Your task to perform on an android device: Open Google Chrome and click the shortcut for Amazon.com Image 0: 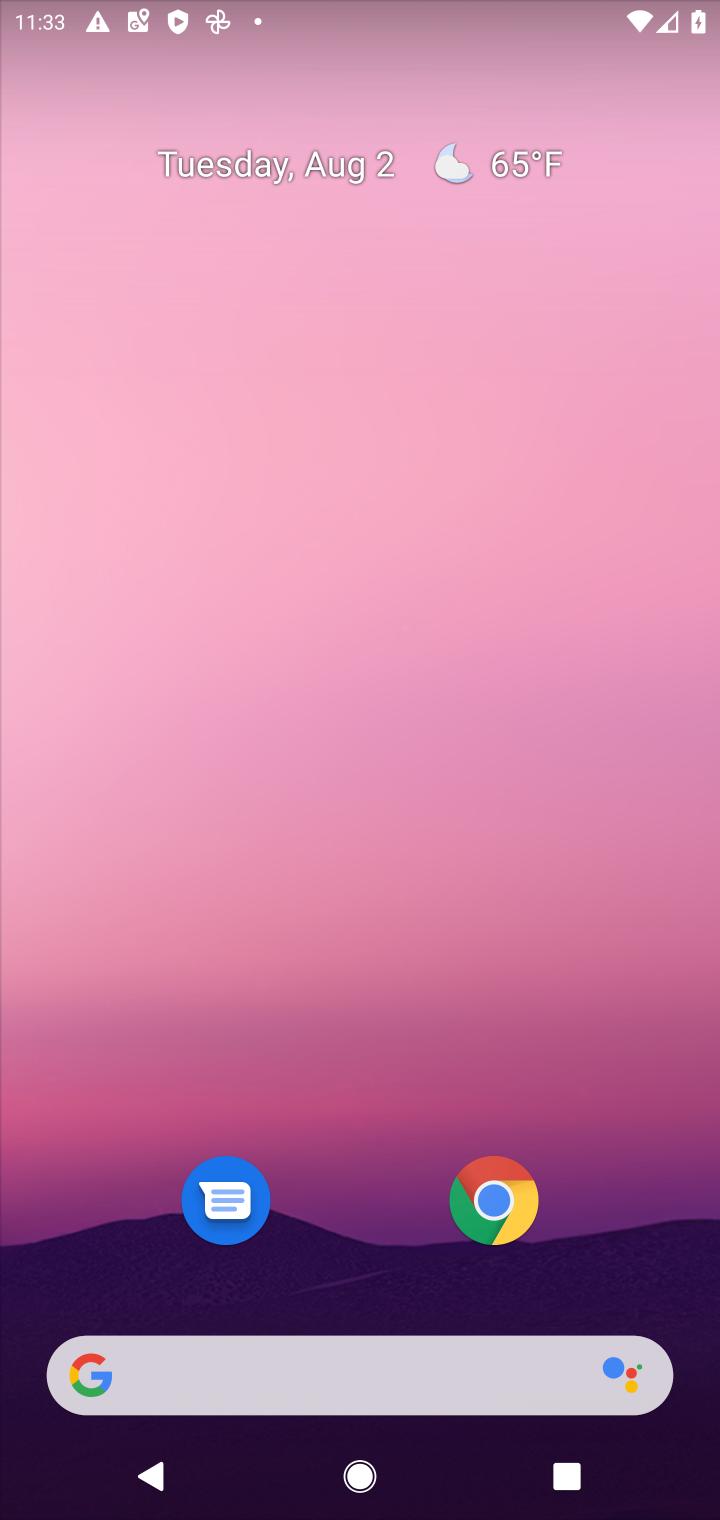
Step 0: click (497, 1204)
Your task to perform on an android device: Open Google Chrome and click the shortcut for Amazon.com Image 1: 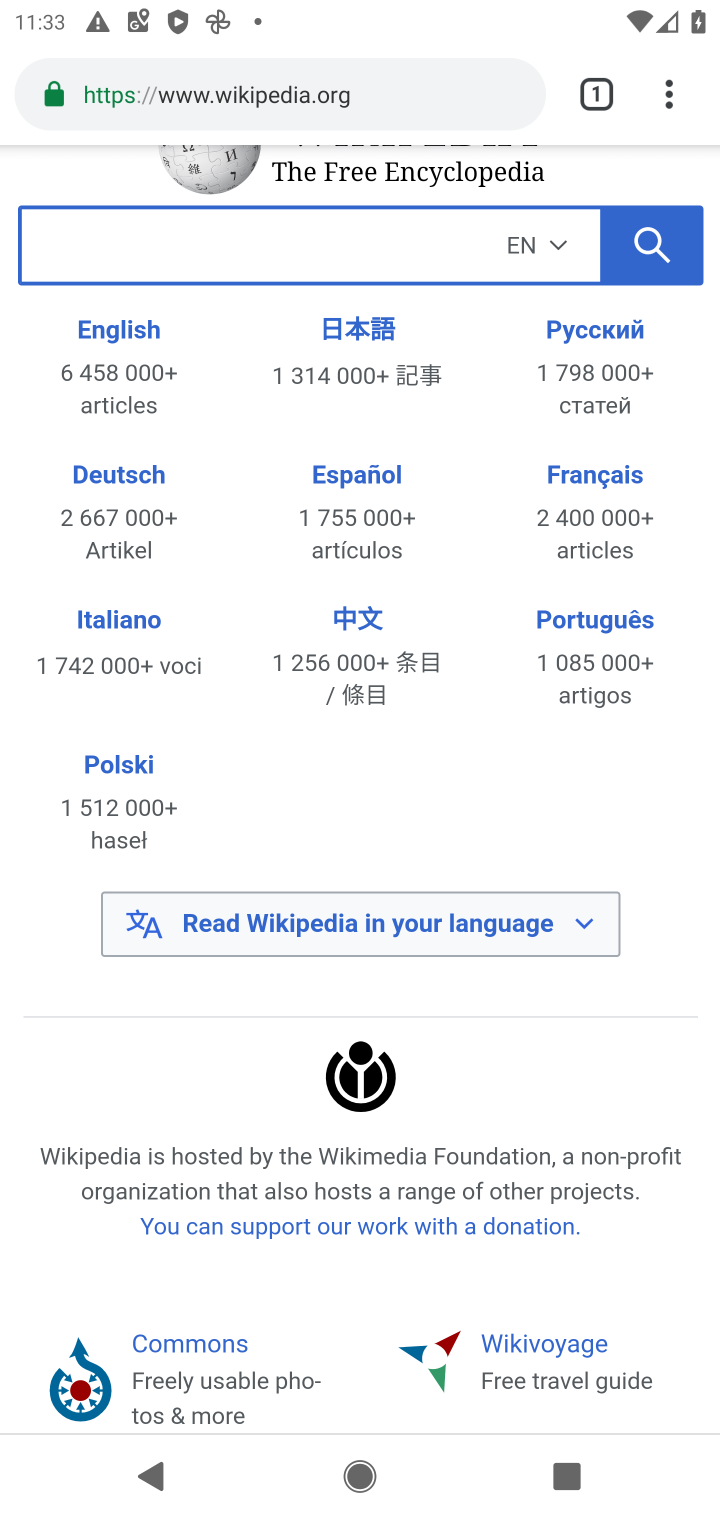
Step 1: click (672, 110)
Your task to perform on an android device: Open Google Chrome and click the shortcut for Amazon.com Image 2: 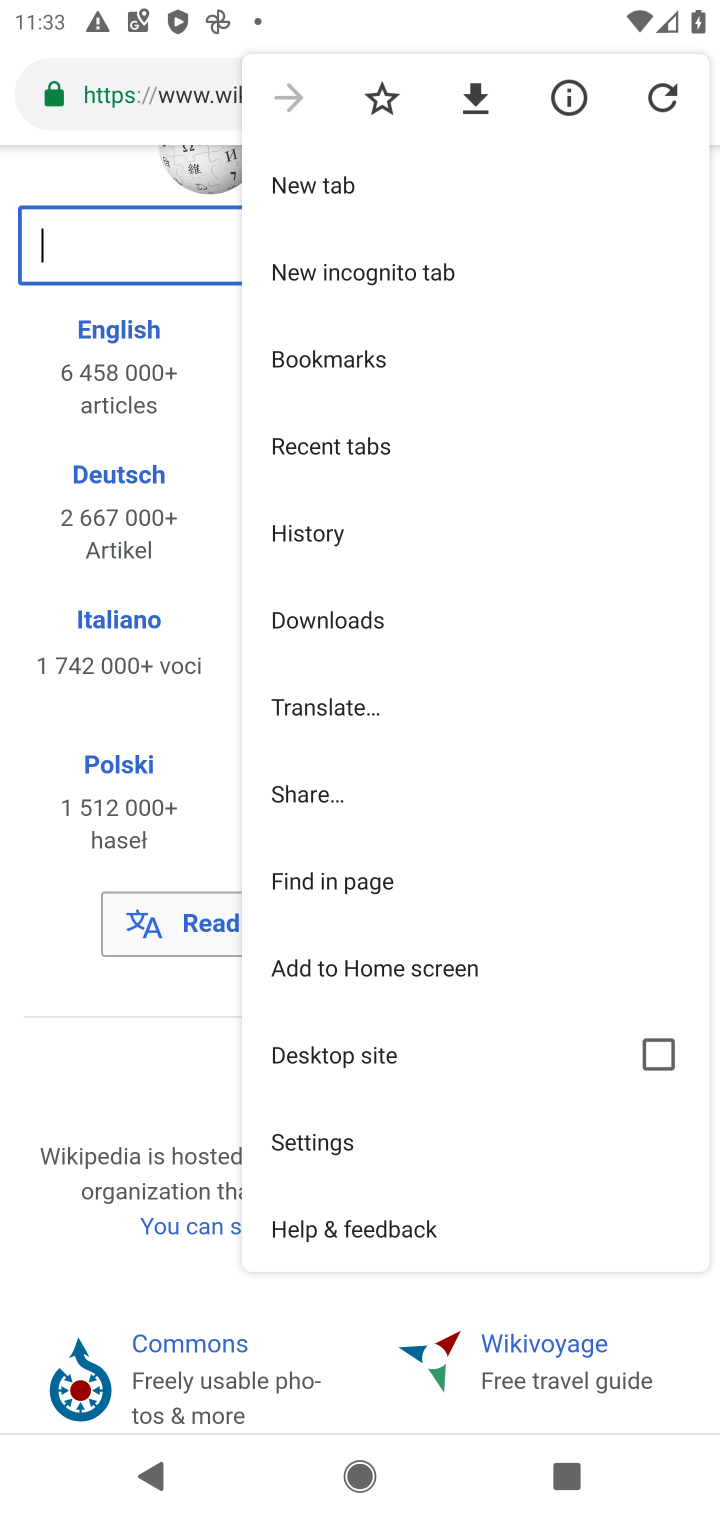
Step 2: click (309, 181)
Your task to perform on an android device: Open Google Chrome and click the shortcut for Amazon.com Image 3: 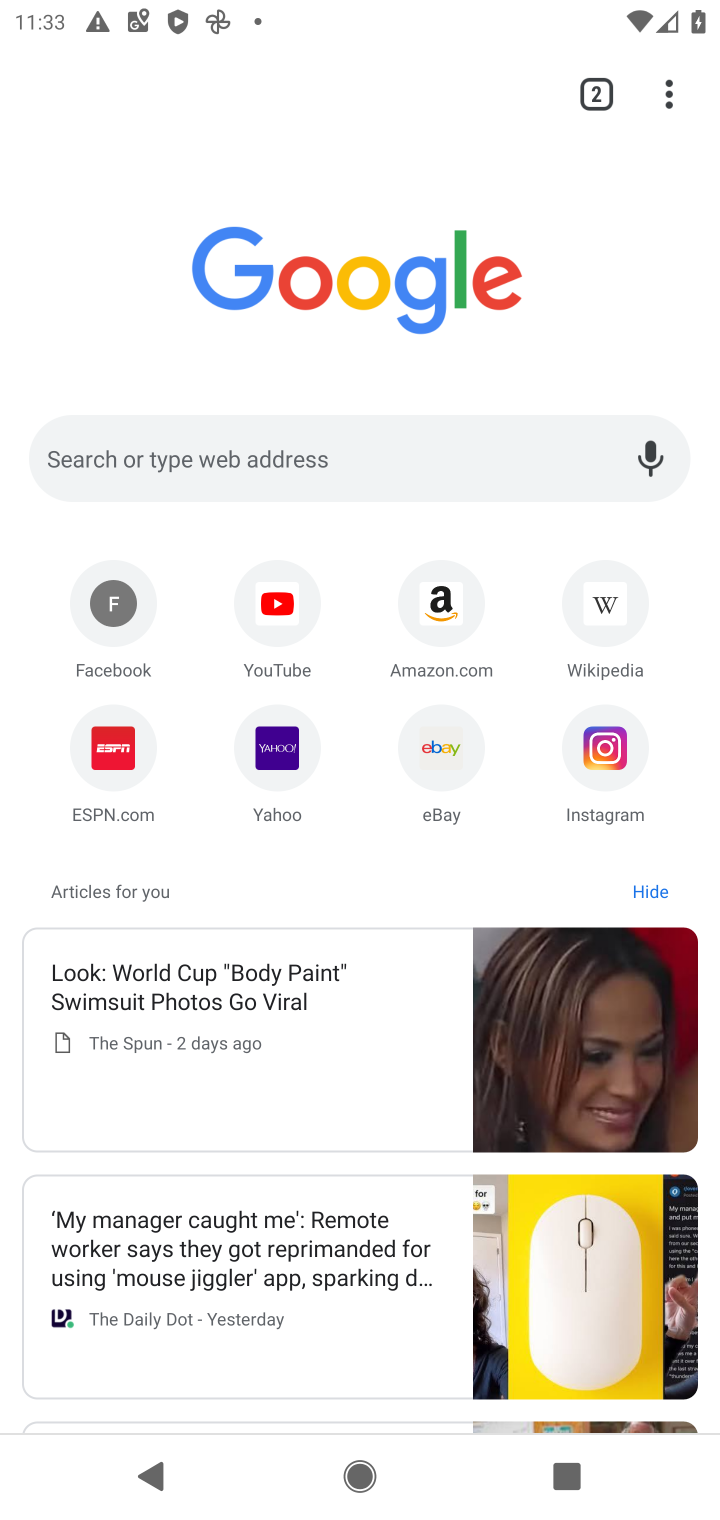
Step 3: click (443, 602)
Your task to perform on an android device: Open Google Chrome and click the shortcut for Amazon.com Image 4: 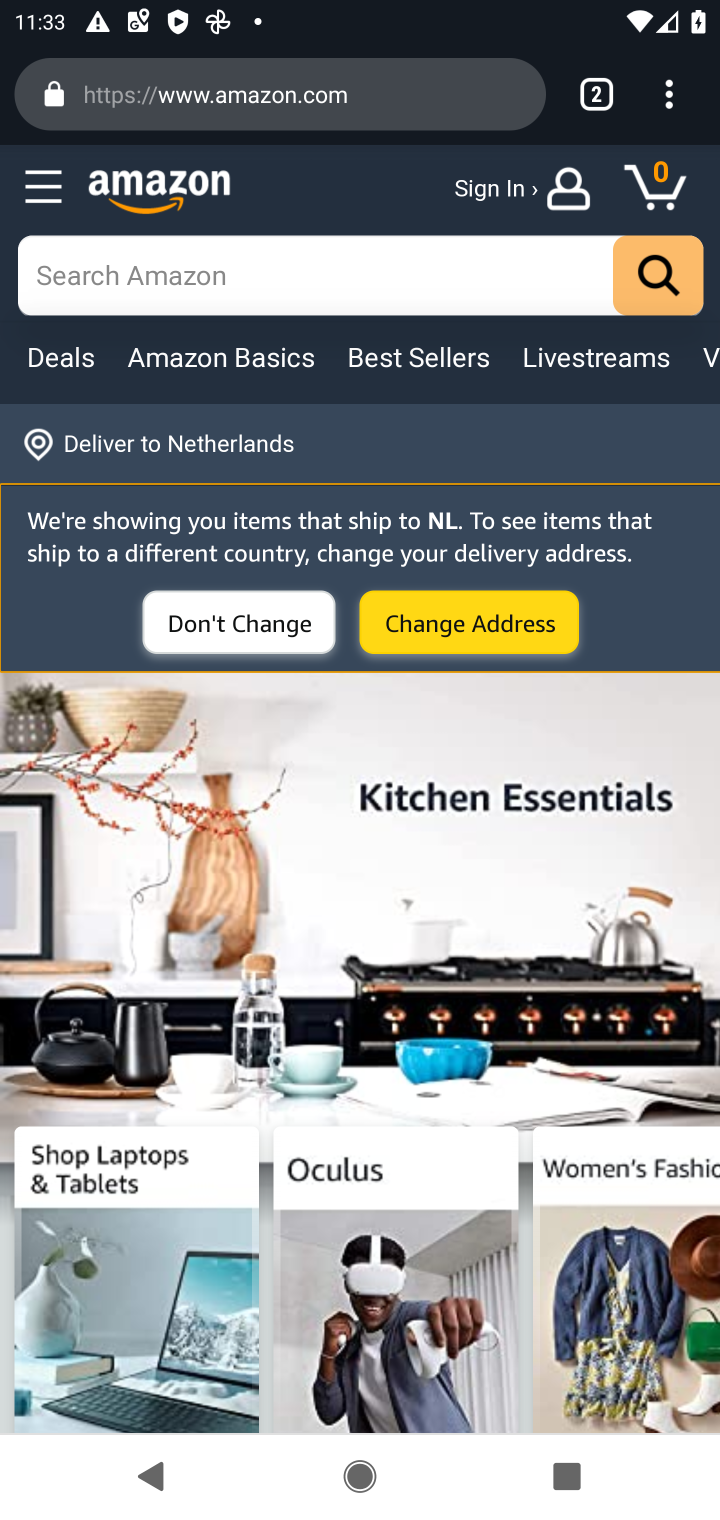
Step 4: task complete